Your task to perform on an android device: Play the last video I watched on Youtube Image 0: 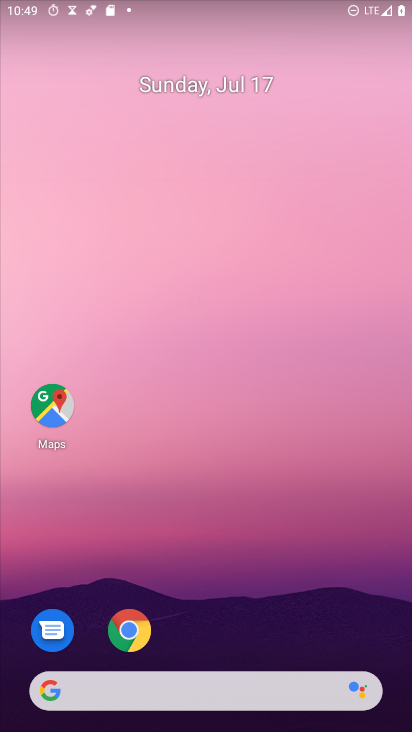
Step 0: drag from (205, 671) to (193, 80)
Your task to perform on an android device: Play the last video I watched on Youtube Image 1: 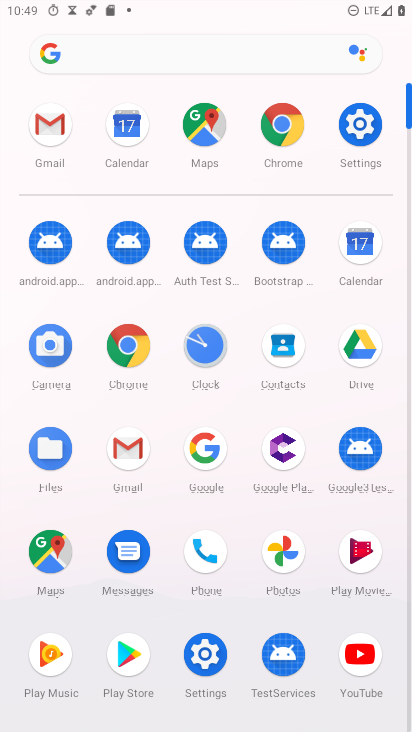
Step 1: click (362, 660)
Your task to perform on an android device: Play the last video I watched on Youtube Image 2: 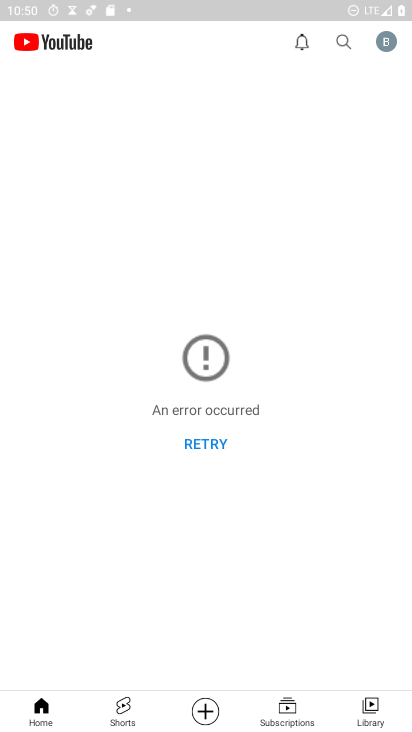
Step 2: click (383, 702)
Your task to perform on an android device: Play the last video I watched on Youtube Image 3: 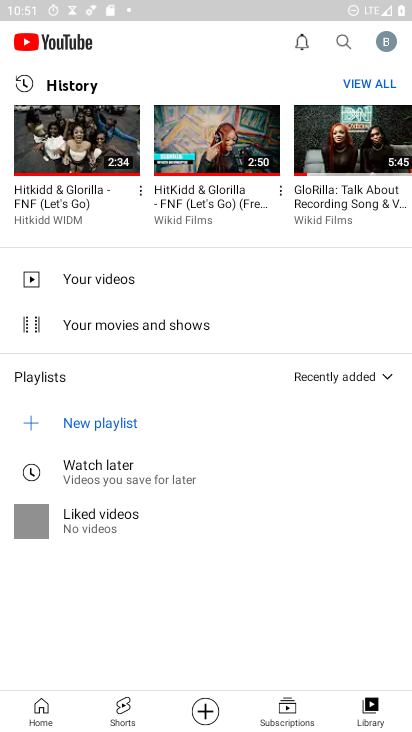
Step 3: click (112, 151)
Your task to perform on an android device: Play the last video I watched on Youtube Image 4: 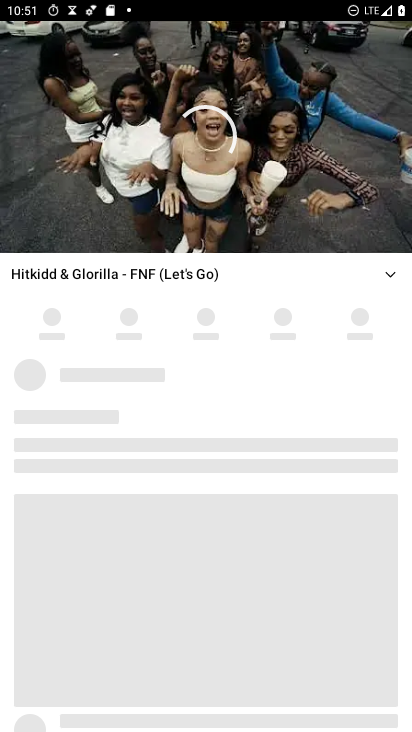
Step 4: task complete